Your task to perform on an android device: Open display settings Image 0: 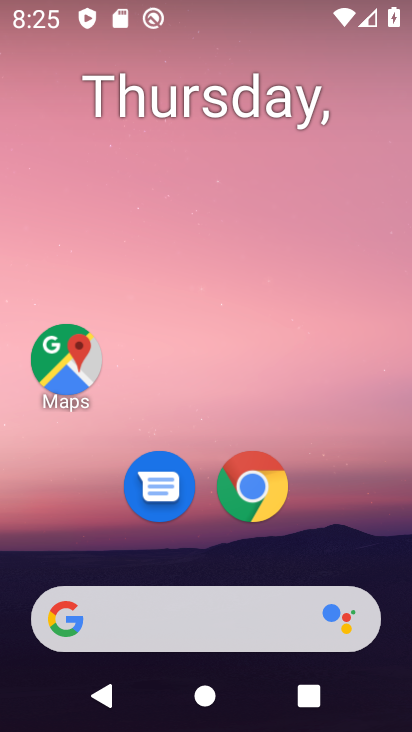
Step 0: drag from (198, 465) to (253, 5)
Your task to perform on an android device: Open display settings Image 1: 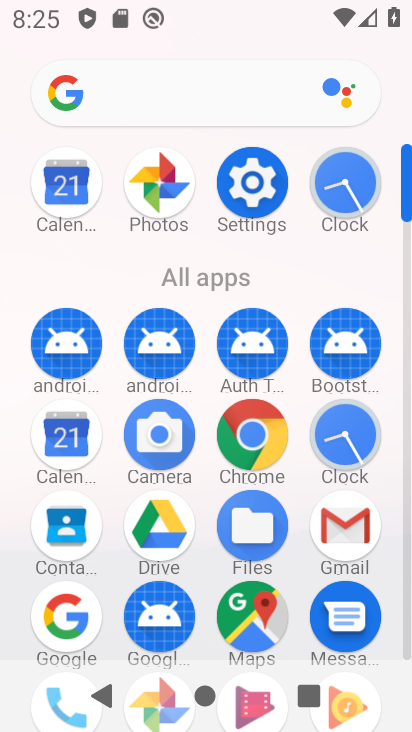
Step 1: click (266, 203)
Your task to perform on an android device: Open display settings Image 2: 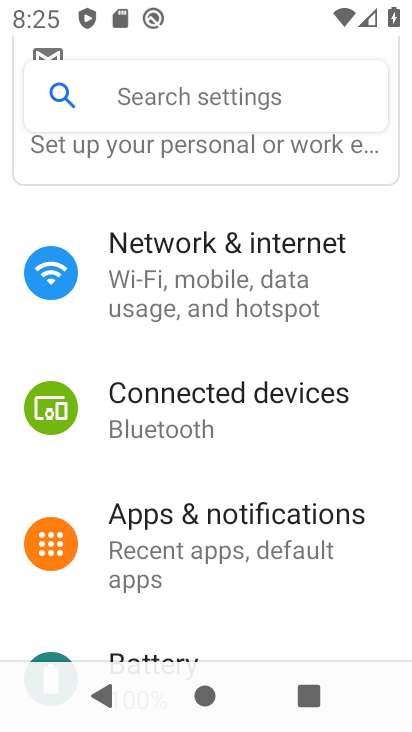
Step 2: drag from (178, 578) to (236, 201)
Your task to perform on an android device: Open display settings Image 3: 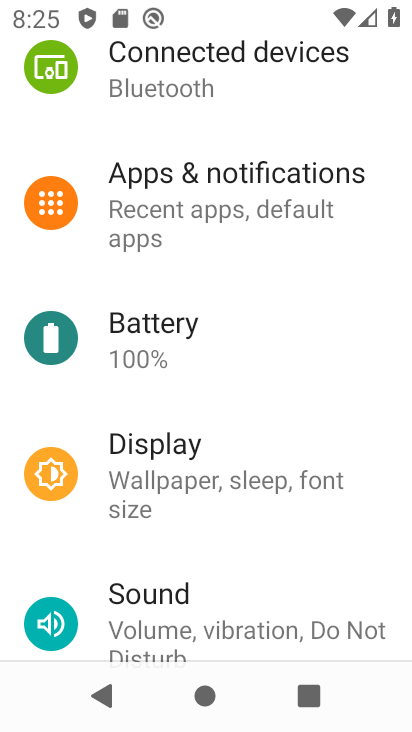
Step 3: click (161, 468)
Your task to perform on an android device: Open display settings Image 4: 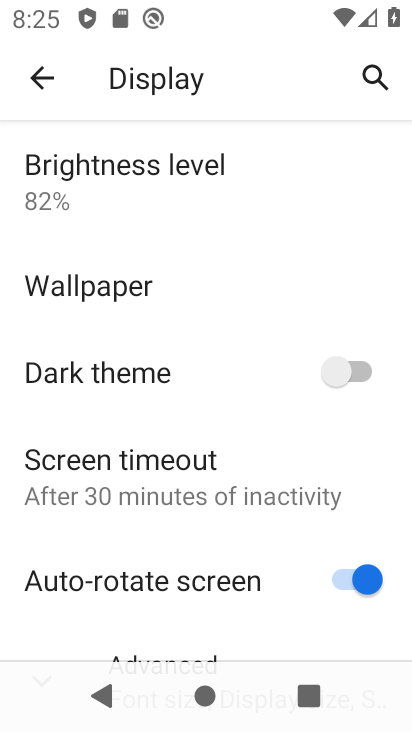
Step 4: task complete